Your task to perform on an android device: set an alarm Image 0: 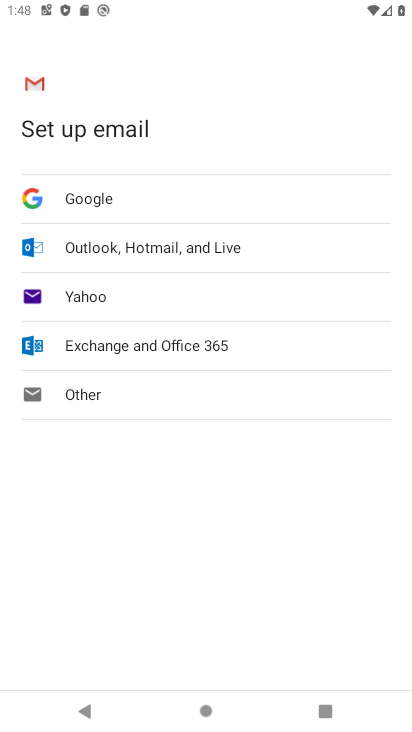
Step 0: click (284, 670)
Your task to perform on an android device: set an alarm Image 1: 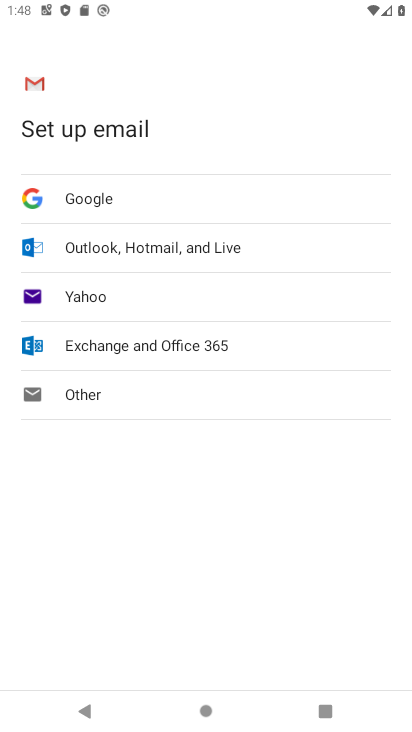
Step 1: press home button
Your task to perform on an android device: set an alarm Image 2: 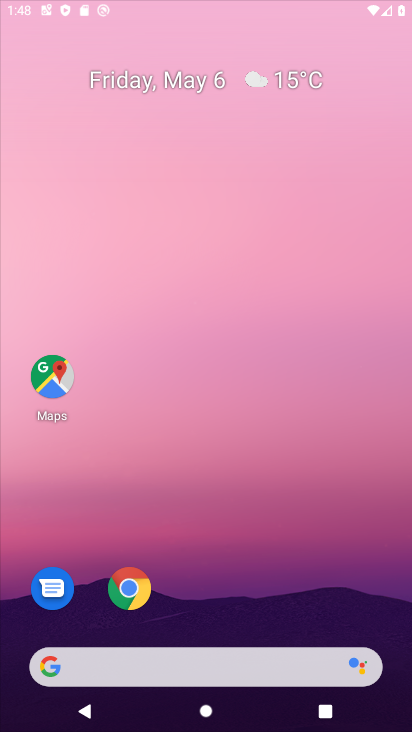
Step 2: drag from (193, 641) to (250, 227)
Your task to perform on an android device: set an alarm Image 3: 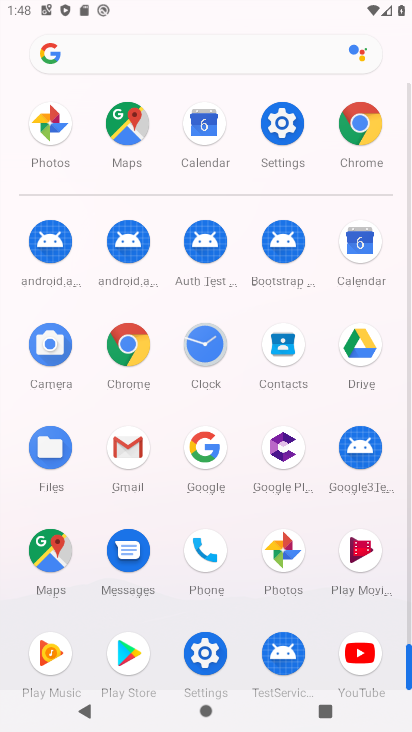
Step 3: click (217, 353)
Your task to perform on an android device: set an alarm Image 4: 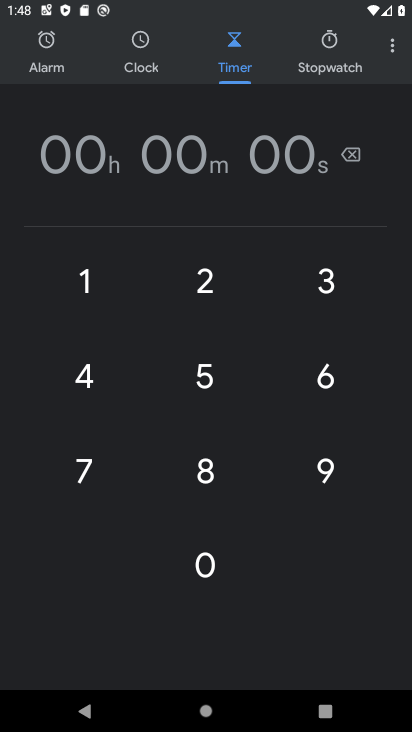
Step 4: click (161, 45)
Your task to perform on an android device: set an alarm Image 5: 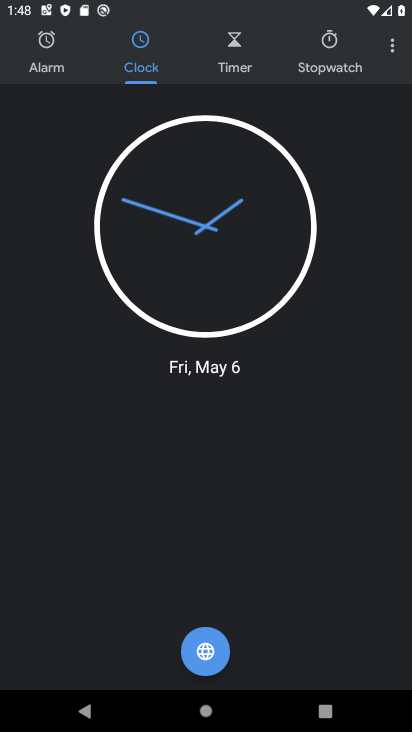
Step 5: click (56, 63)
Your task to perform on an android device: set an alarm Image 6: 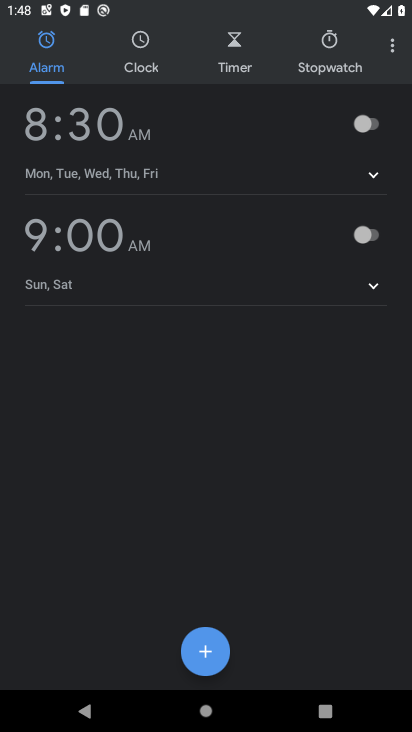
Step 6: click (373, 127)
Your task to perform on an android device: set an alarm Image 7: 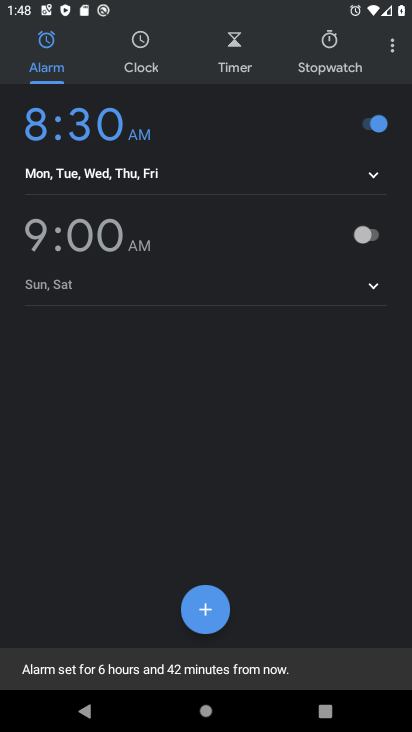
Step 7: task complete